Your task to perform on an android device: Go to notification settings Image 0: 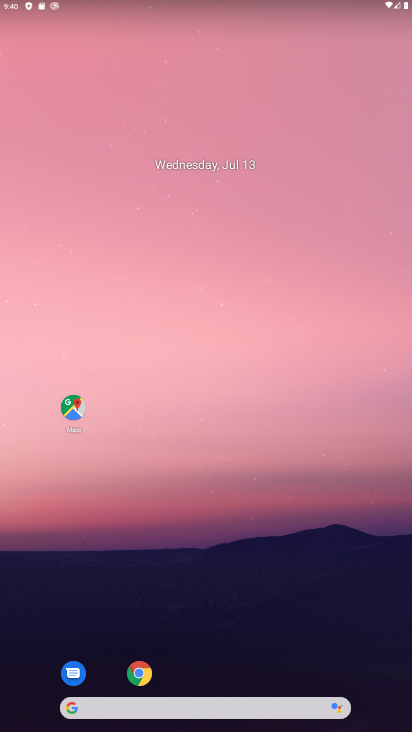
Step 0: drag from (158, 693) to (164, 401)
Your task to perform on an android device: Go to notification settings Image 1: 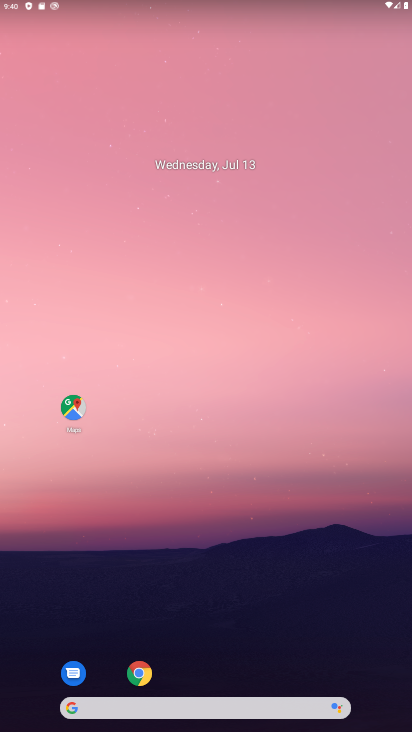
Step 1: drag from (213, 699) to (218, 251)
Your task to perform on an android device: Go to notification settings Image 2: 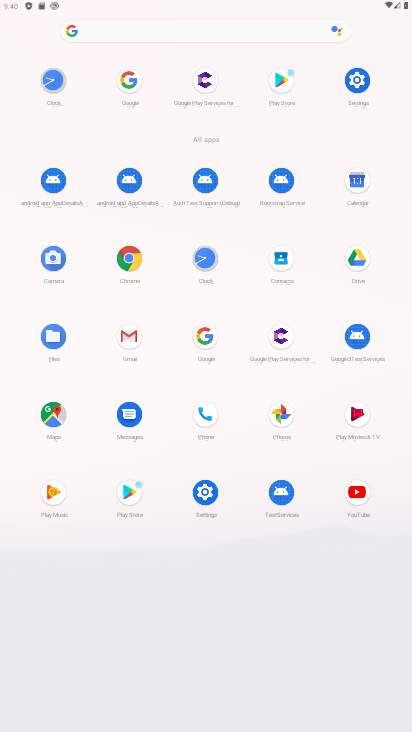
Step 2: click (356, 81)
Your task to perform on an android device: Go to notification settings Image 3: 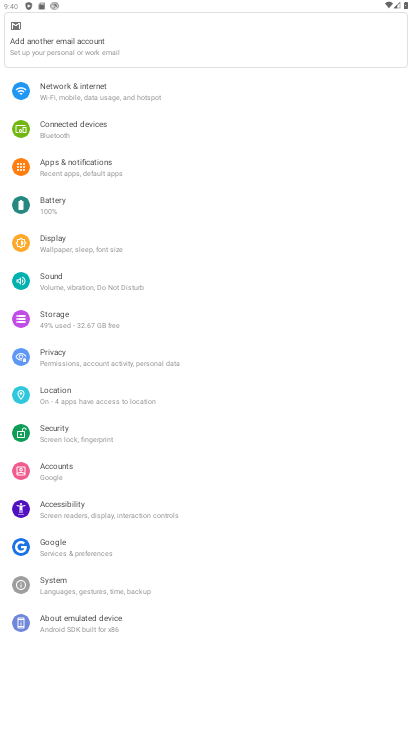
Step 3: click (56, 173)
Your task to perform on an android device: Go to notification settings Image 4: 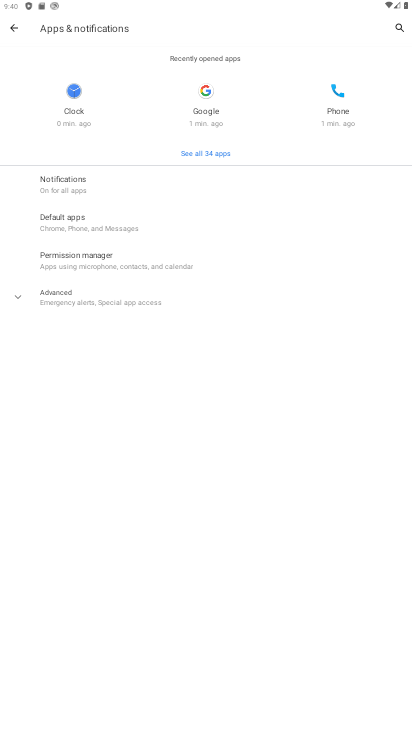
Step 4: click (79, 178)
Your task to perform on an android device: Go to notification settings Image 5: 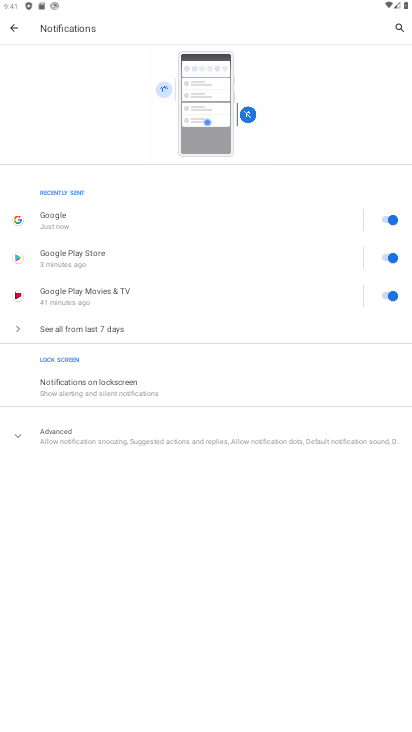
Step 5: click (103, 439)
Your task to perform on an android device: Go to notification settings Image 6: 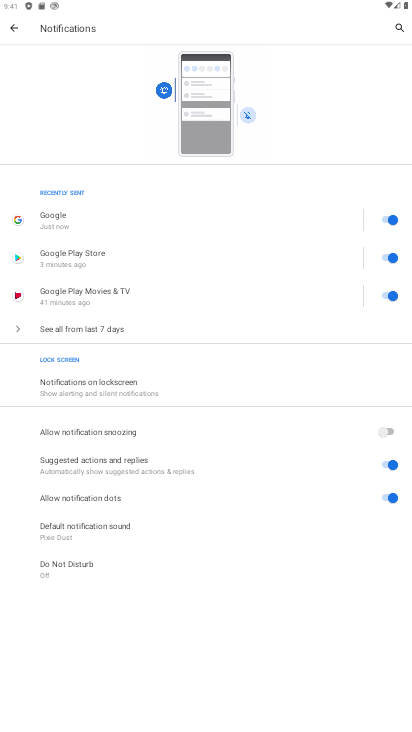
Step 6: task complete